Your task to perform on an android device: What's the news in Taiwan? Image 0: 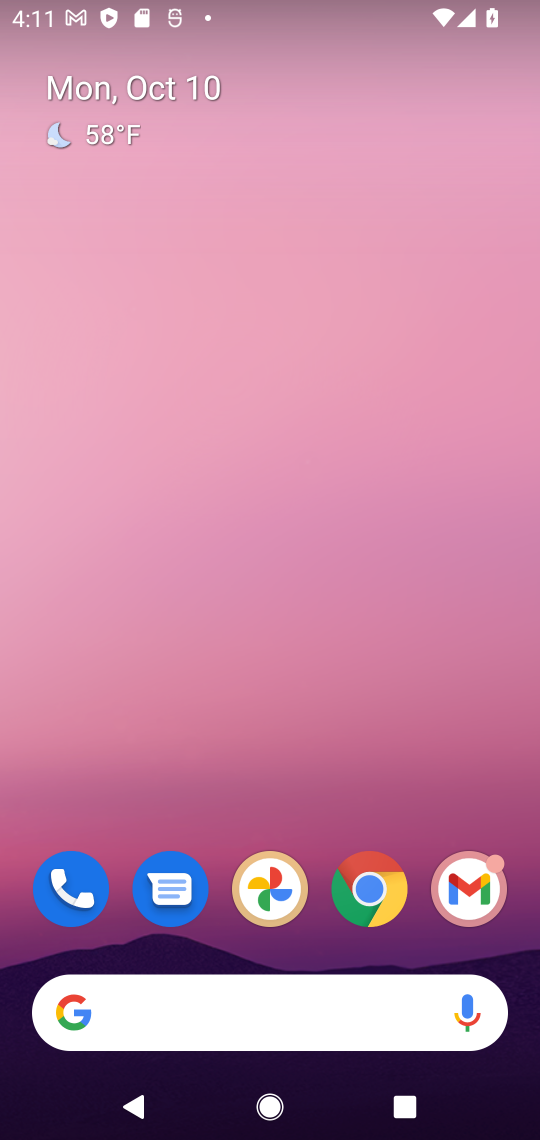
Step 0: click (371, 885)
Your task to perform on an android device: What's the news in Taiwan? Image 1: 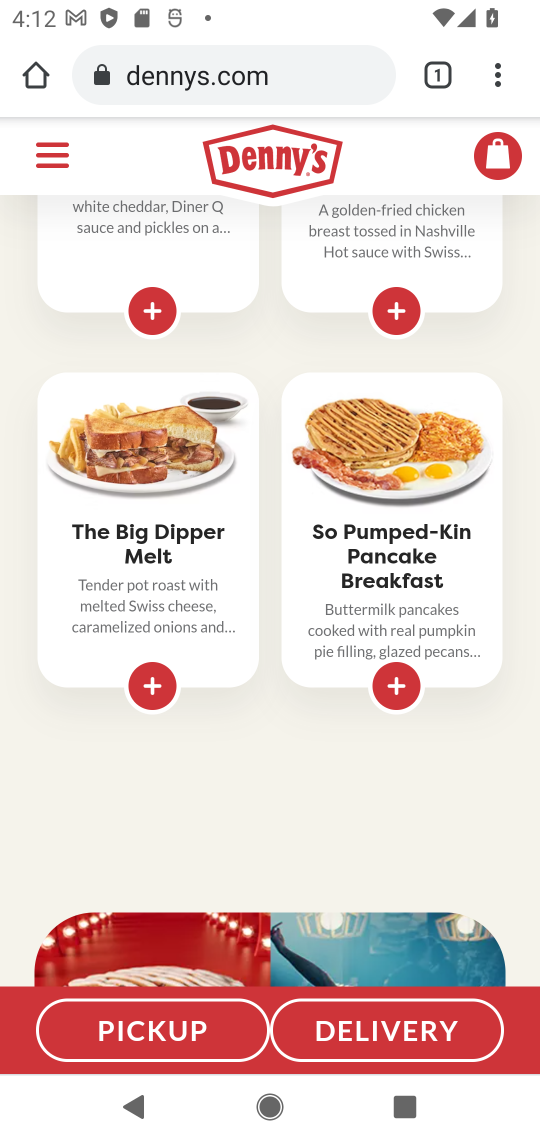
Step 1: click (34, 64)
Your task to perform on an android device: What's the news in Taiwan? Image 2: 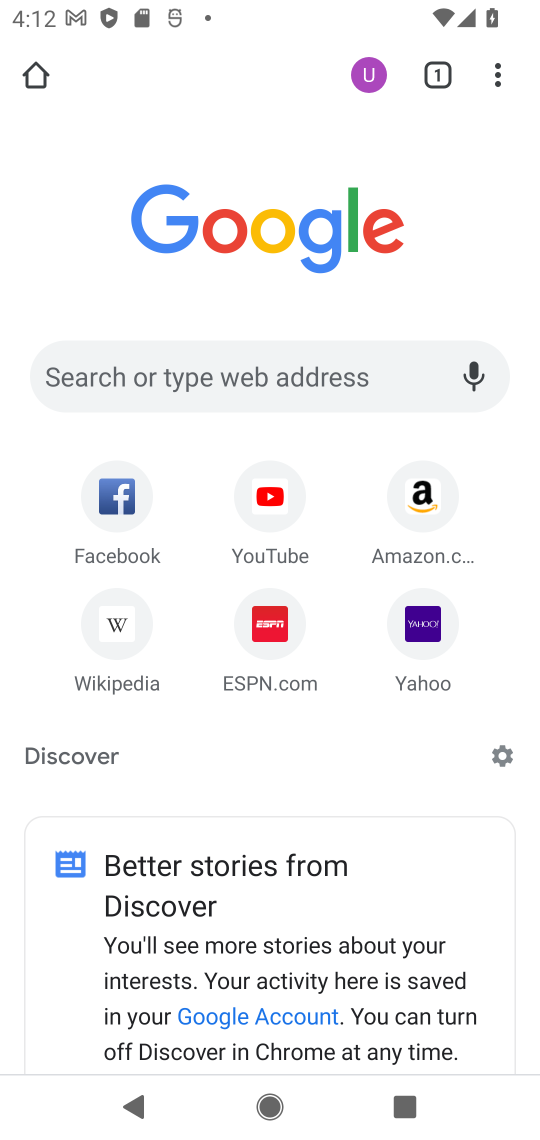
Step 2: click (200, 366)
Your task to perform on an android device: What's the news in Taiwan? Image 3: 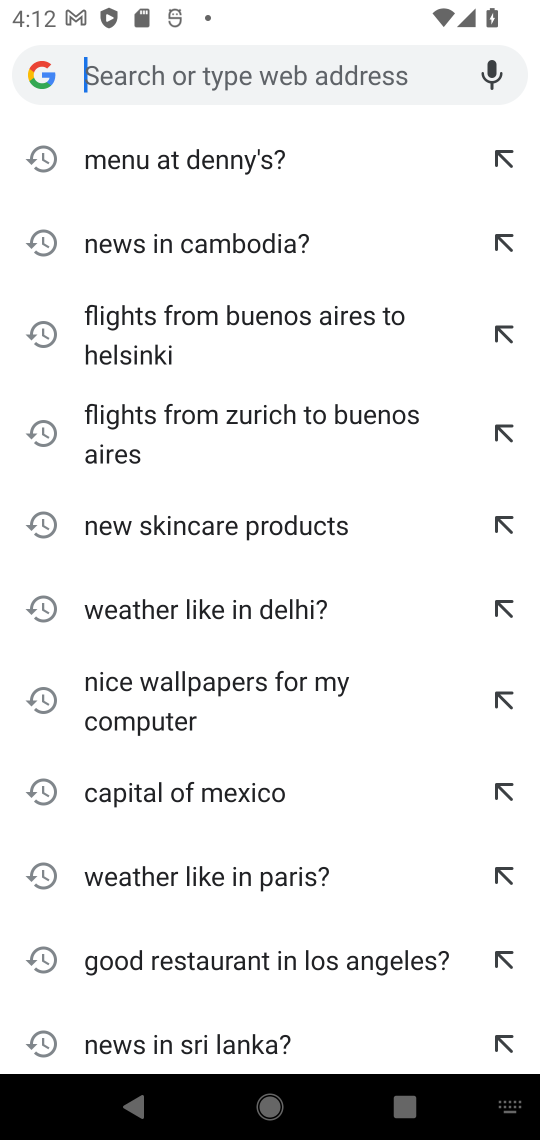
Step 3: type " news in Taiwan?"
Your task to perform on an android device: What's the news in Taiwan? Image 4: 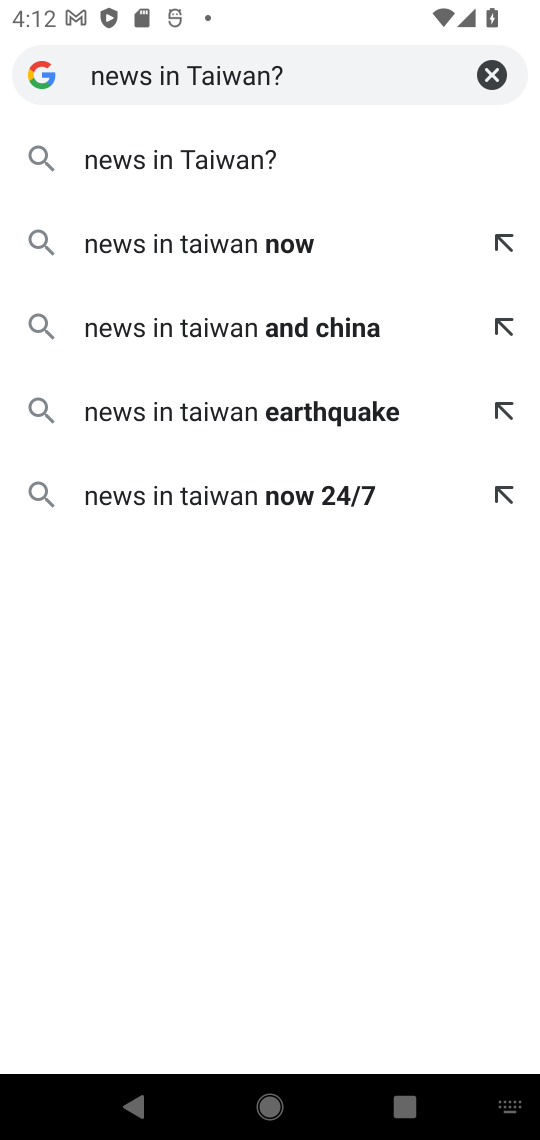
Step 4: click (178, 165)
Your task to perform on an android device: What's the news in Taiwan? Image 5: 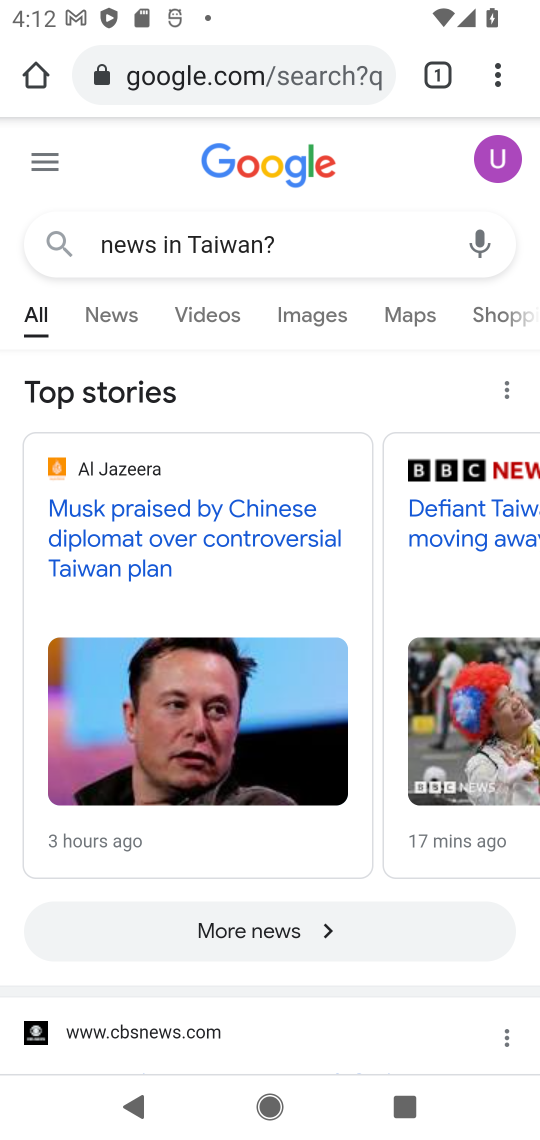
Step 5: click (379, 879)
Your task to perform on an android device: What's the news in Taiwan? Image 6: 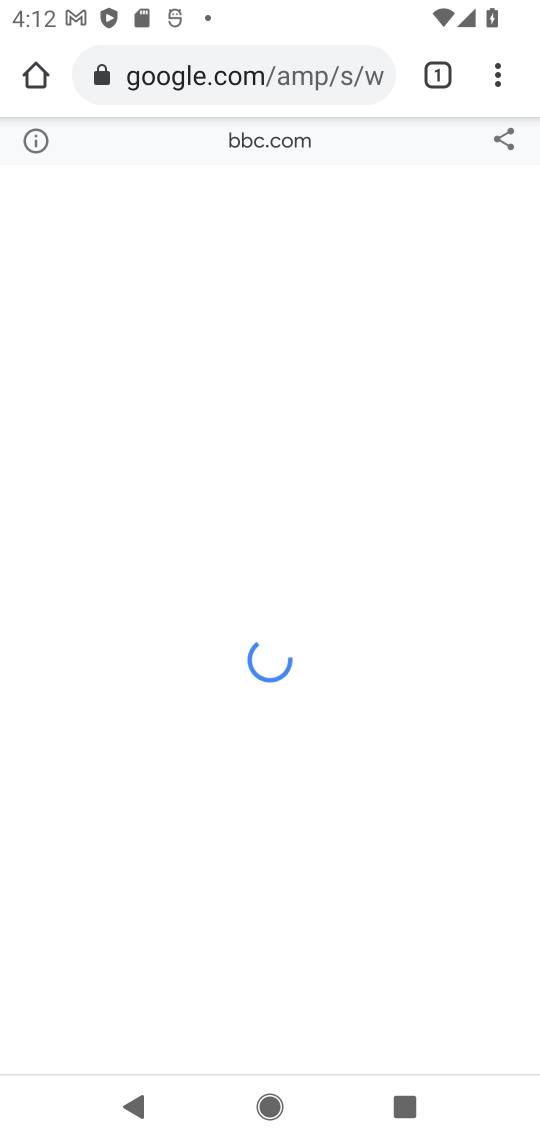
Step 6: task complete